Your task to perform on an android device: Open internet settings Image 0: 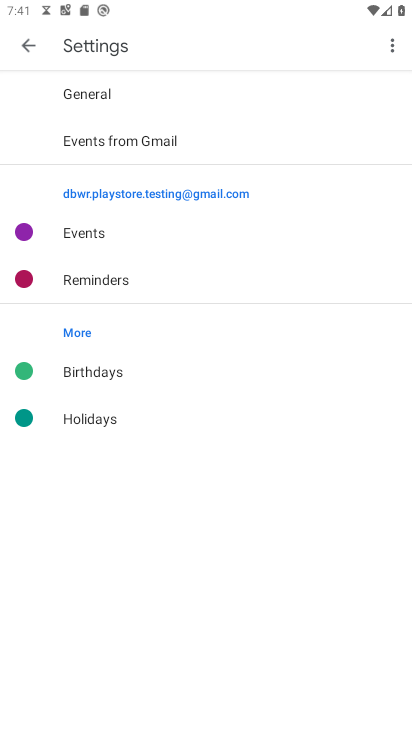
Step 0: press back button
Your task to perform on an android device: Open internet settings Image 1: 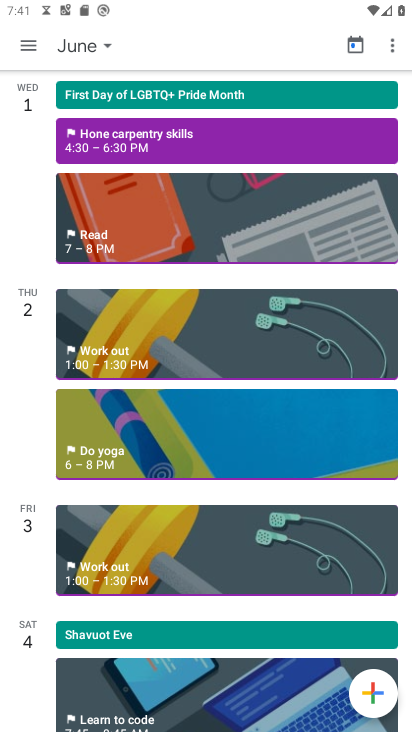
Step 1: press back button
Your task to perform on an android device: Open internet settings Image 2: 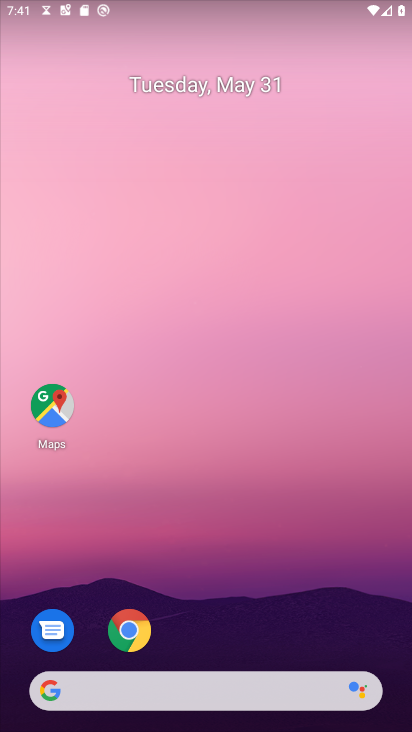
Step 2: drag from (289, 634) to (229, 138)
Your task to perform on an android device: Open internet settings Image 3: 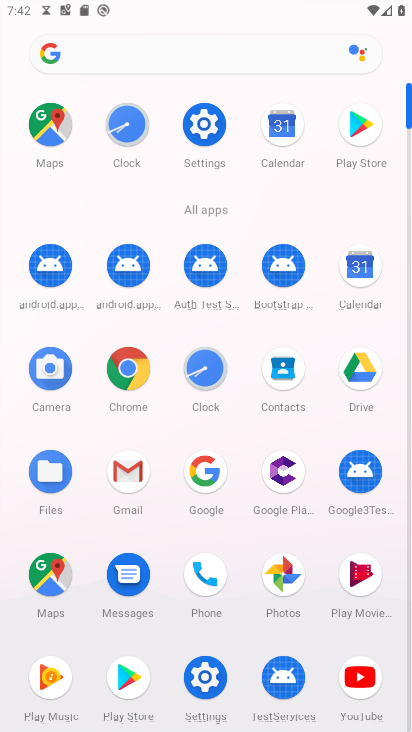
Step 3: click (203, 124)
Your task to perform on an android device: Open internet settings Image 4: 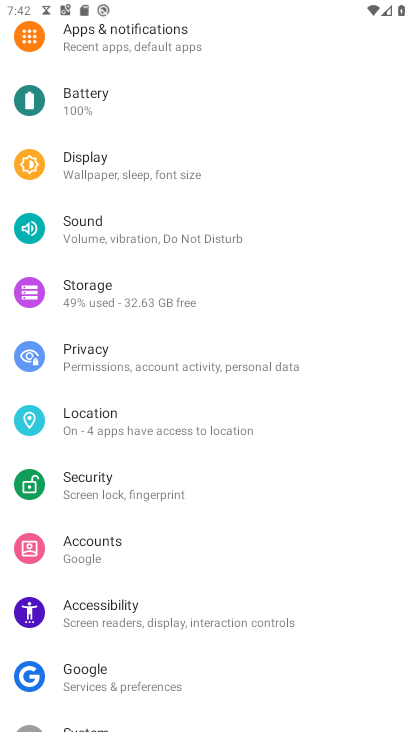
Step 4: drag from (176, 145) to (187, 232)
Your task to perform on an android device: Open internet settings Image 5: 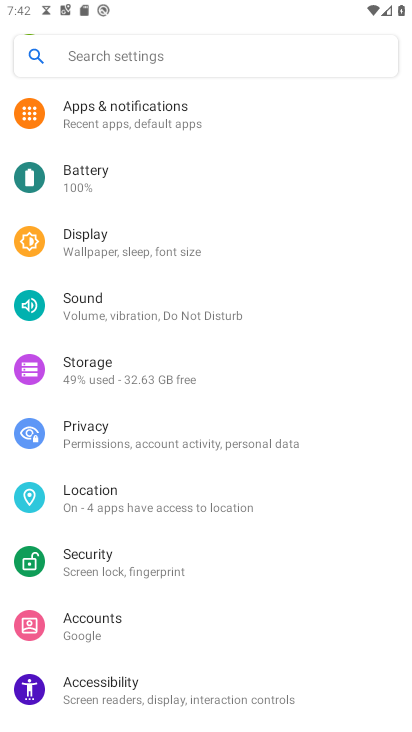
Step 5: drag from (181, 181) to (187, 270)
Your task to perform on an android device: Open internet settings Image 6: 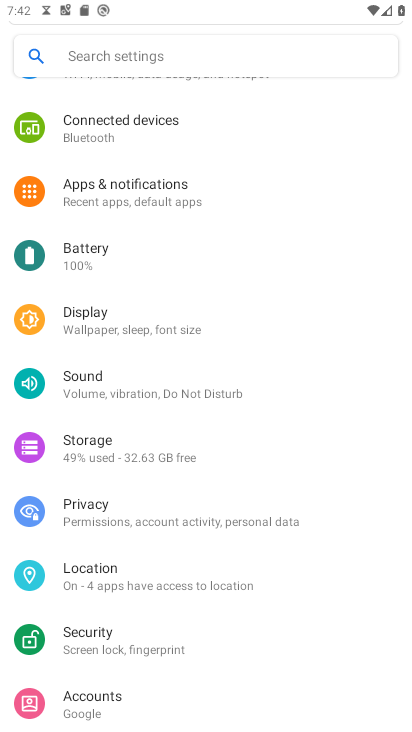
Step 6: drag from (164, 148) to (194, 281)
Your task to perform on an android device: Open internet settings Image 7: 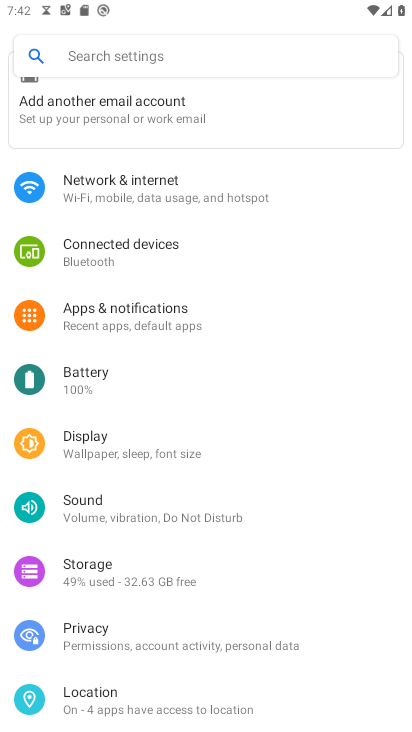
Step 7: click (152, 196)
Your task to perform on an android device: Open internet settings Image 8: 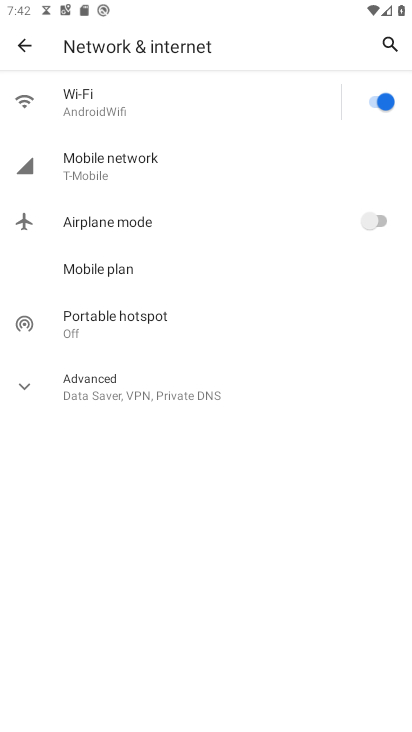
Step 8: task complete